Your task to perform on an android device: Clear the shopping cart on newegg.com. Image 0: 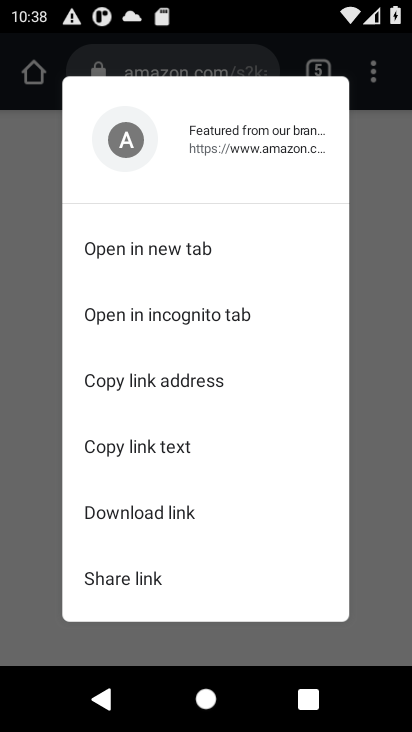
Step 0: press home button
Your task to perform on an android device: Clear the shopping cart on newegg.com. Image 1: 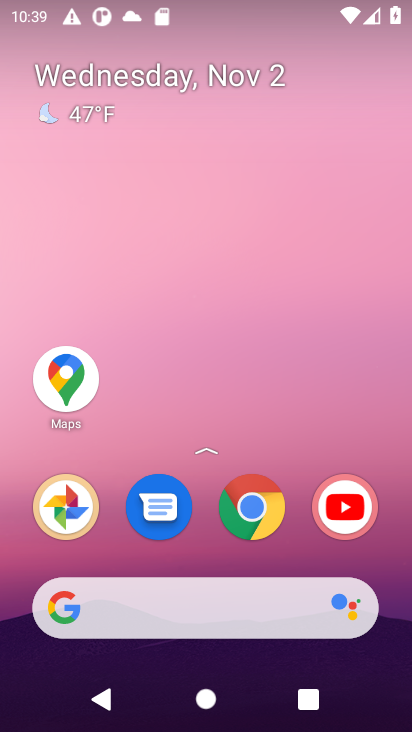
Step 1: click (178, 611)
Your task to perform on an android device: Clear the shopping cart on newegg.com. Image 2: 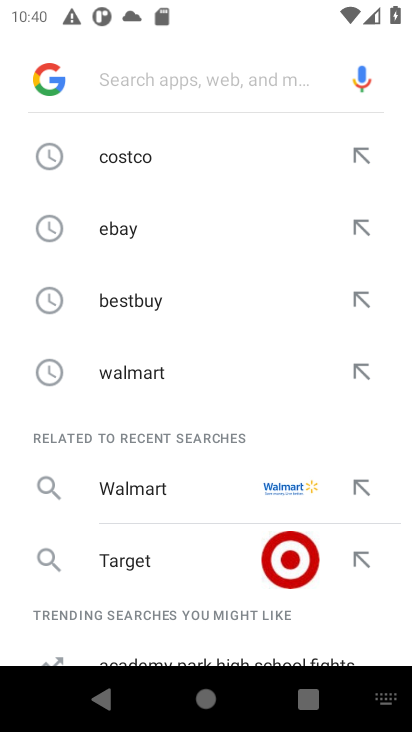
Step 2: type "newegg"
Your task to perform on an android device: Clear the shopping cart on newegg.com. Image 3: 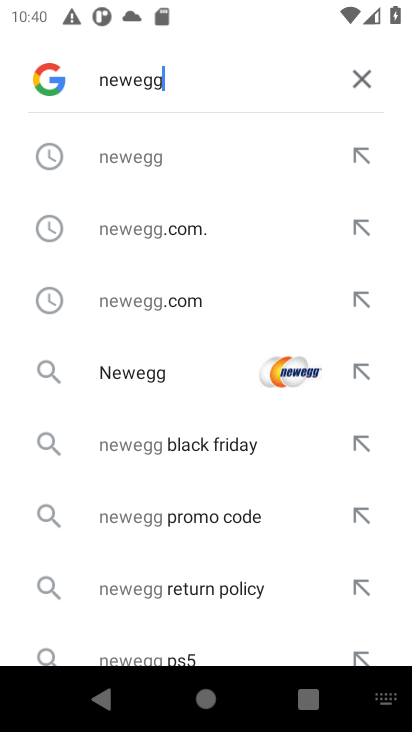
Step 3: click (139, 169)
Your task to perform on an android device: Clear the shopping cart on newegg.com. Image 4: 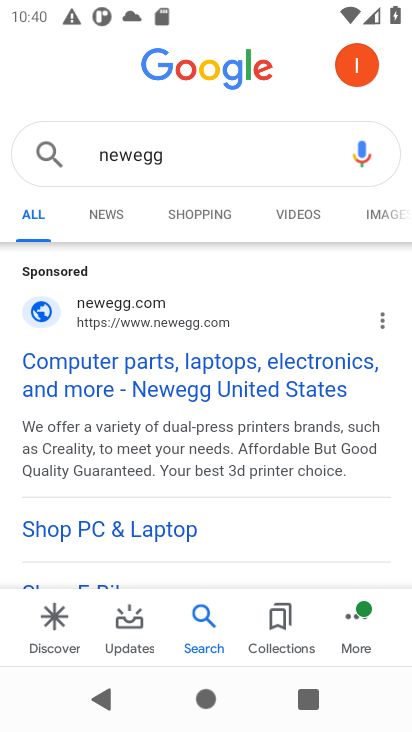
Step 4: click (216, 367)
Your task to perform on an android device: Clear the shopping cart on newegg.com. Image 5: 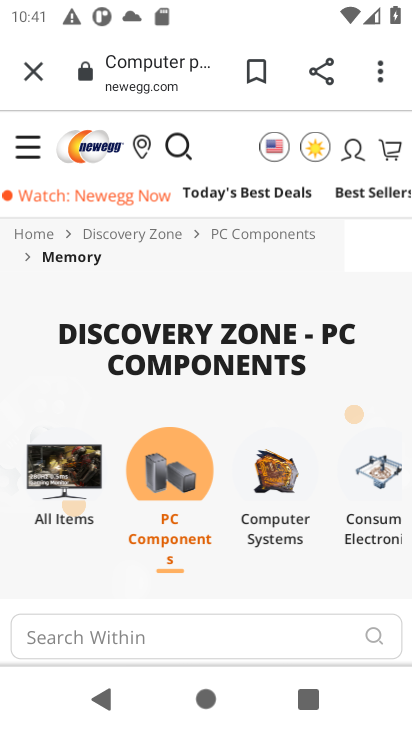
Step 5: click (383, 158)
Your task to perform on an android device: Clear the shopping cart on newegg.com. Image 6: 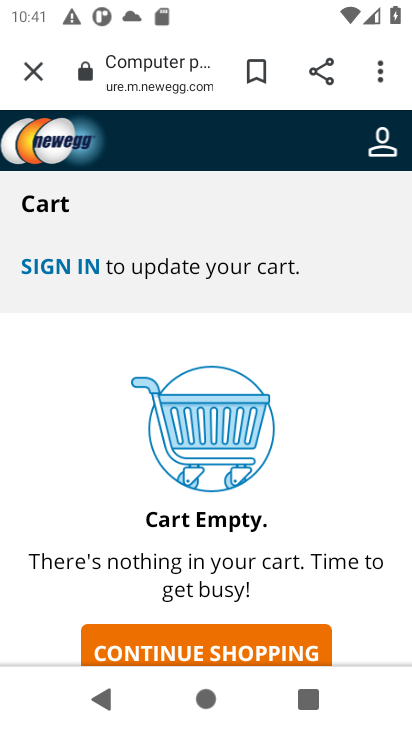
Step 6: task complete